Your task to perform on an android device: toggle priority inbox in the gmail app Image 0: 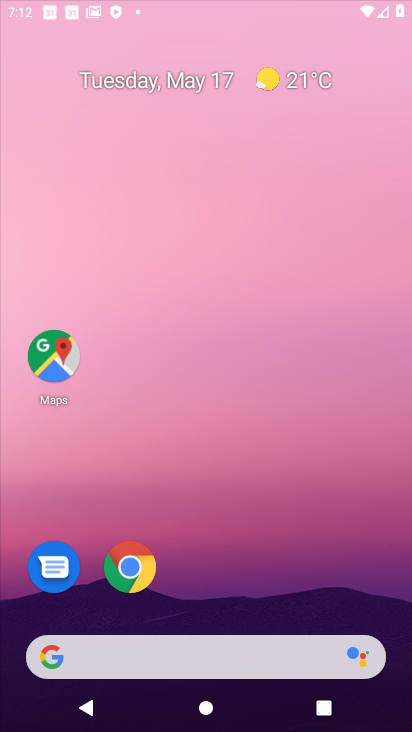
Step 0: click (210, 398)
Your task to perform on an android device: toggle priority inbox in the gmail app Image 1: 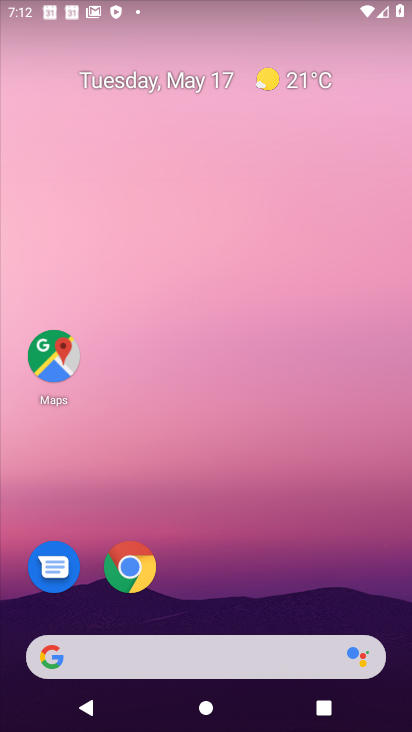
Step 1: drag from (247, 573) to (164, 132)
Your task to perform on an android device: toggle priority inbox in the gmail app Image 2: 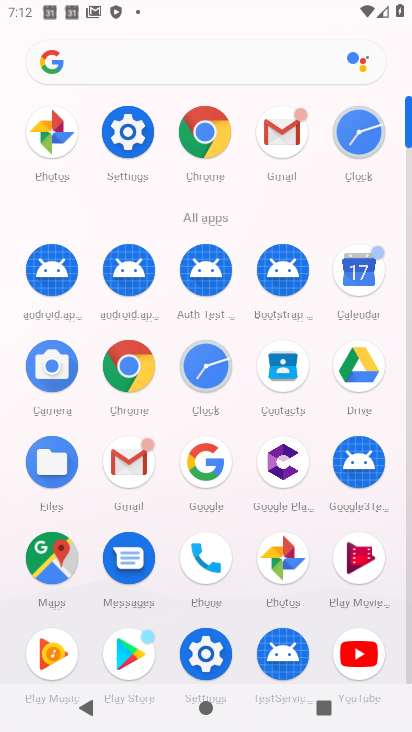
Step 2: click (276, 140)
Your task to perform on an android device: toggle priority inbox in the gmail app Image 3: 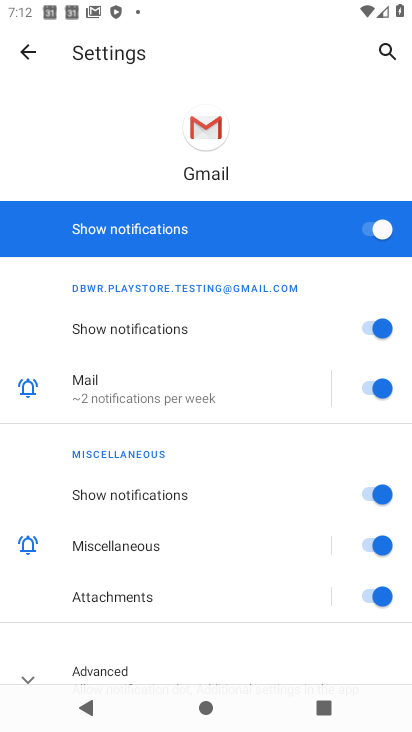
Step 3: click (25, 51)
Your task to perform on an android device: toggle priority inbox in the gmail app Image 4: 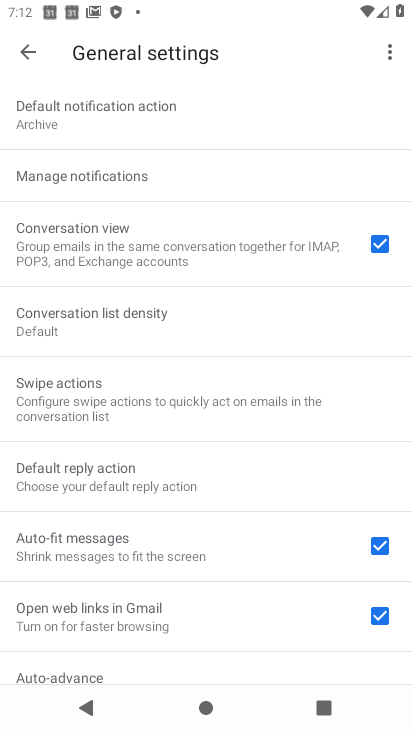
Step 4: drag from (131, 151) to (132, 487)
Your task to perform on an android device: toggle priority inbox in the gmail app Image 5: 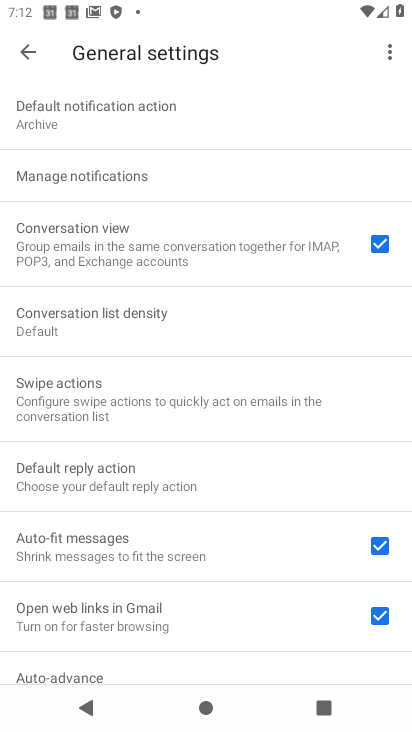
Step 5: click (21, 52)
Your task to perform on an android device: toggle priority inbox in the gmail app Image 6: 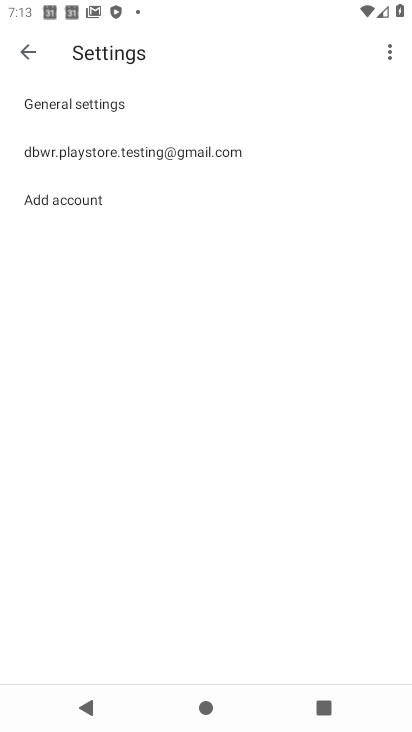
Step 6: click (96, 156)
Your task to perform on an android device: toggle priority inbox in the gmail app Image 7: 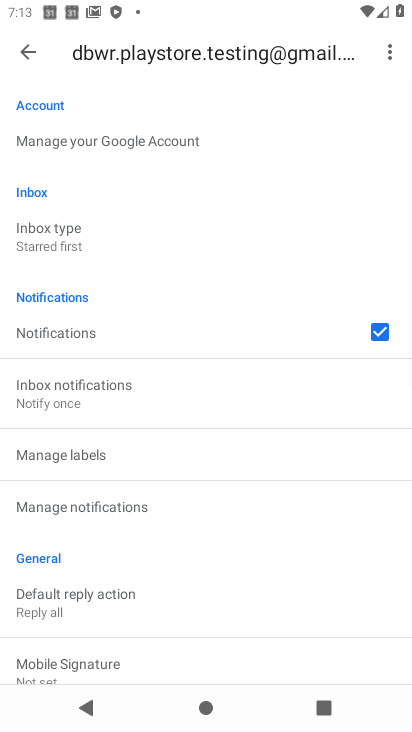
Step 7: click (50, 231)
Your task to perform on an android device: toggle priority inbox in the gmail app Image 8: 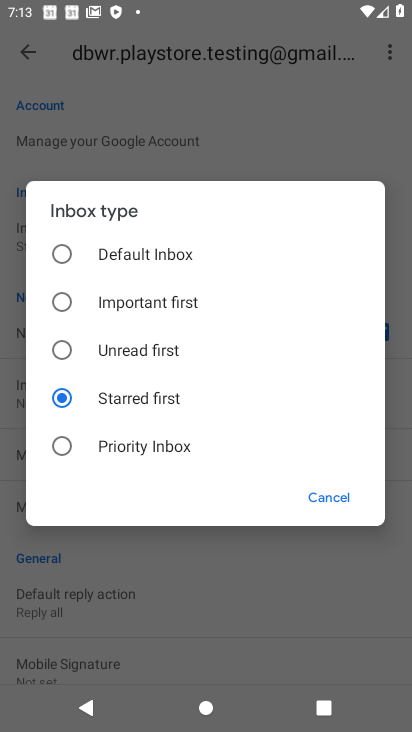
Step 8: click (56, 441)
Your task to perform on an android device: toggle priority inbox in the gmail app Image 9: 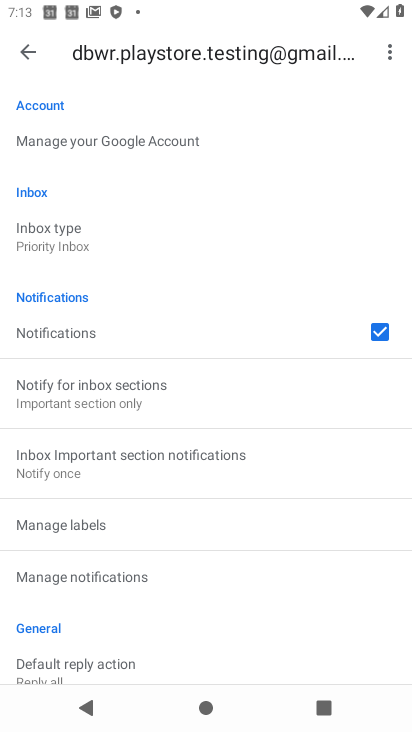
Step 9: task complete